Your task to perform on an android device: Open Yahoo.com Image 0: 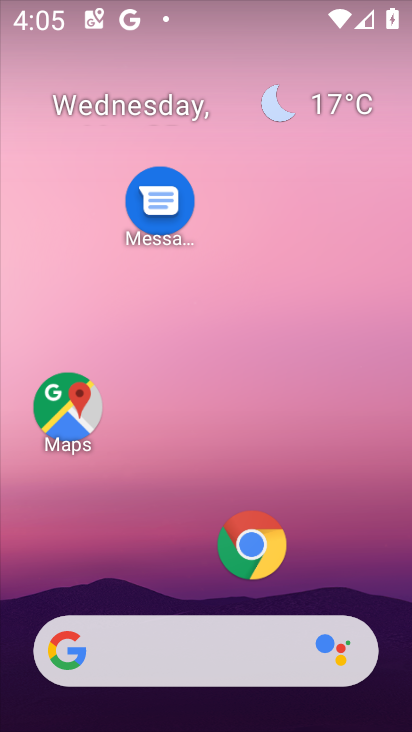
Step 0: click (267, 547)
Your task to perform on an android device: Open Yahoo.com Image 1: 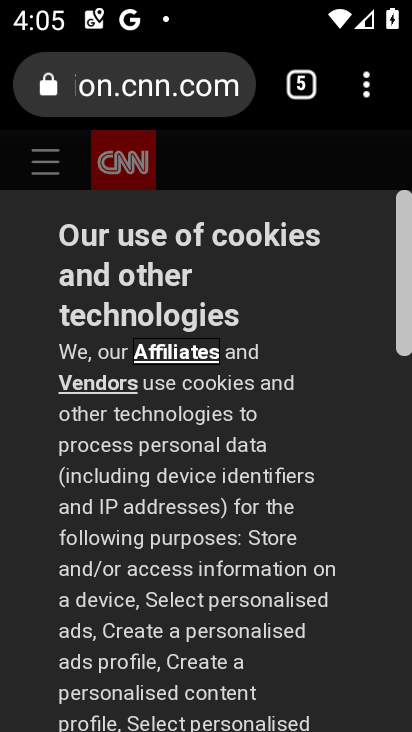
Step 1: click (297, 85)
Your task to perform on an android device: Open Yahoo.com Image 2: 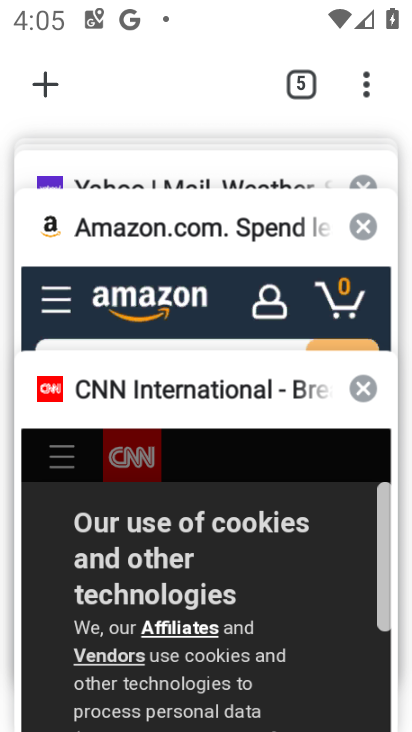
Step 2: click (190, 167)
Your task to perform on an android device: Open Yahoo.com Image 3: 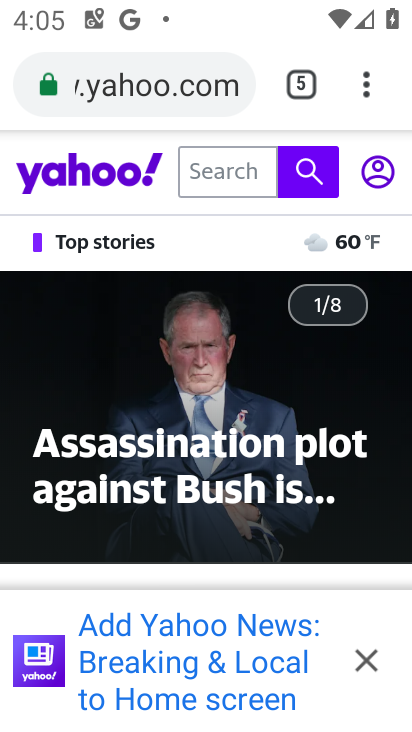
Step 3: task complete